Your task to perform on an android device: When is my next appointment? Image 0: 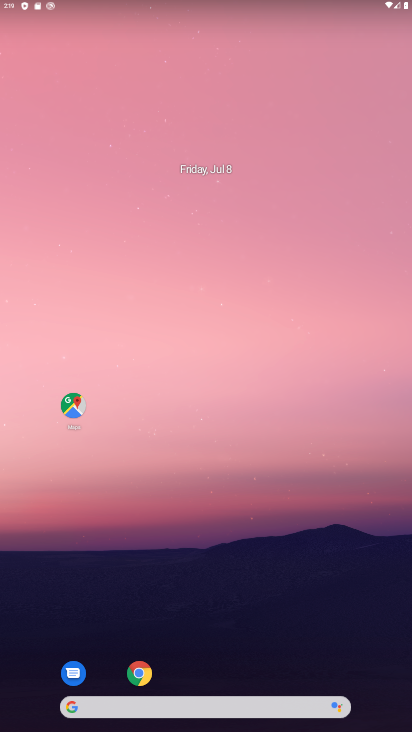
Step 0: drag from (385, 3) to (275, 543)
Your task to perform on an android device: When is my next appointment? Image 1: 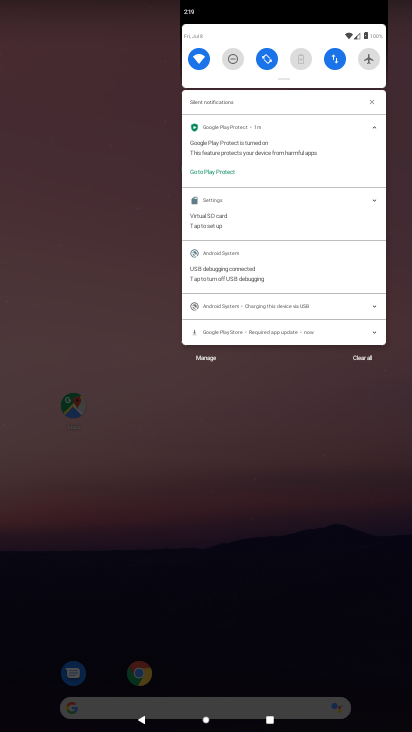
Step 1: click (261, 485)
Your task to perform on an android device: When is my next appointment? Image 2: 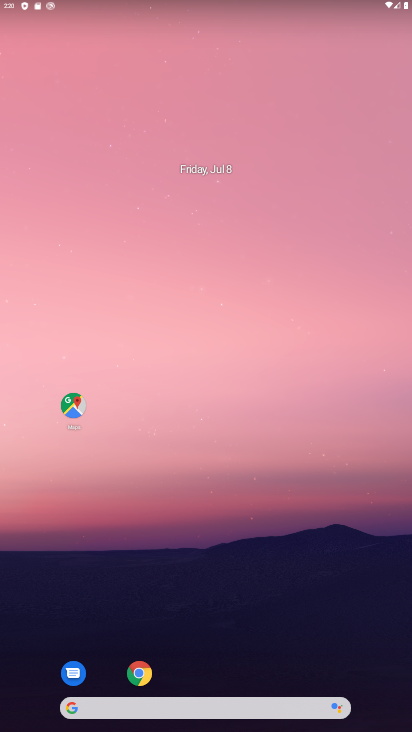
Step 2: drag from (240, 677) to (362, 7)
Your task to perform on an android device: When is my next appointment? Image 3: 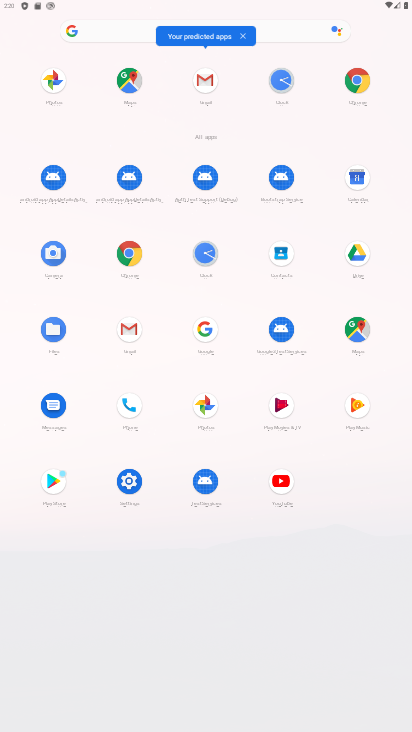
Step 3: click (353, 178)
Your task to perform on an android device: When is my next appointment? Image 4: 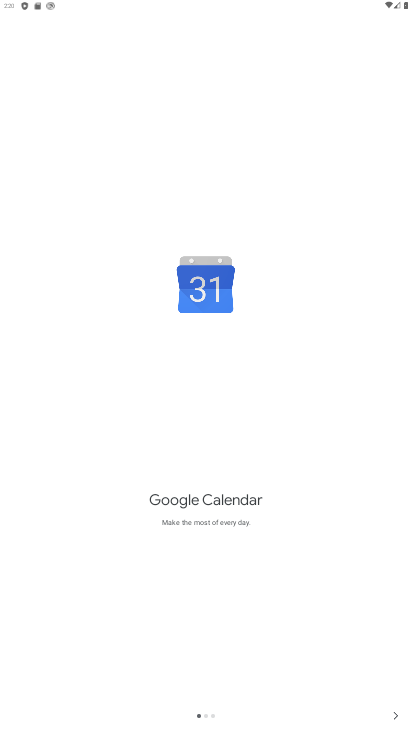
Step 4: click (402, 723)
Your task to perform on an android device: When is my next appointment? Image 5: 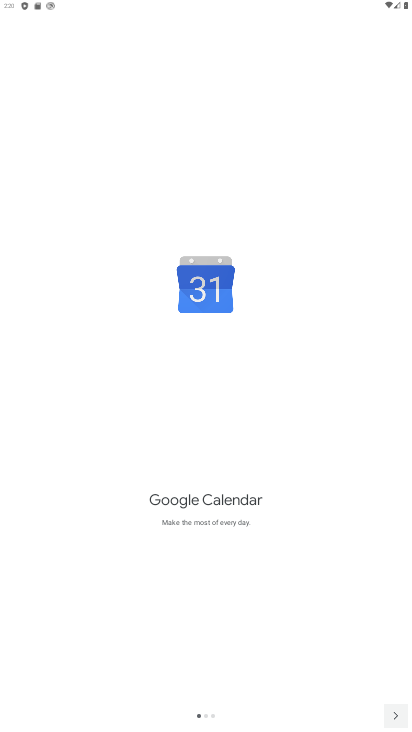
Step 5: click (402, 723)
Your task to perform on an android device: When is my next appointment? Image 6: 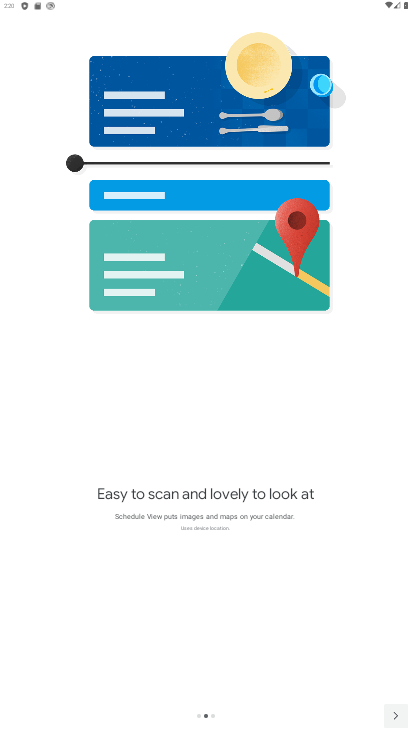
Step 6: click (402, 723)
Your task to perform on an android device: When is my next appointment? Image 7: 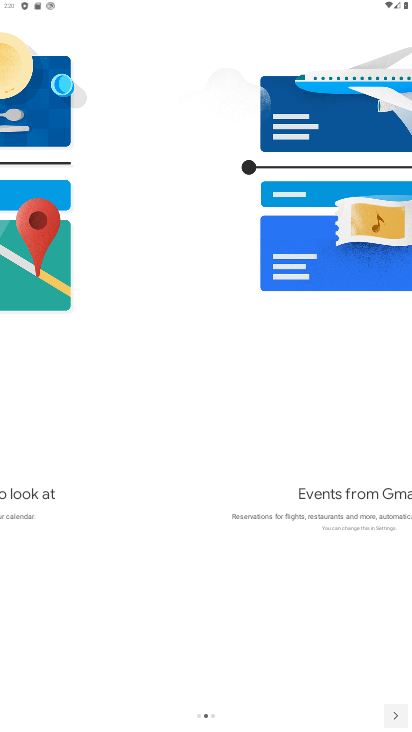
Step 7: click (402, 723)
Your task to perform on an android device: When is my next appointment? Image 8: 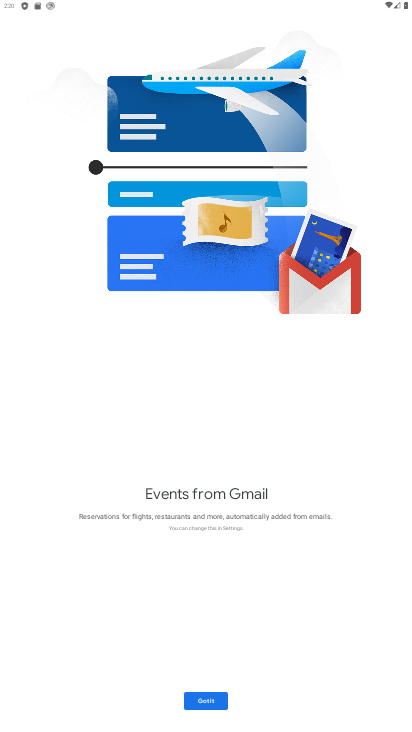
Step 8: click (194, 703)
Your task to perform on an android device: When is my next appointment? Image 9: 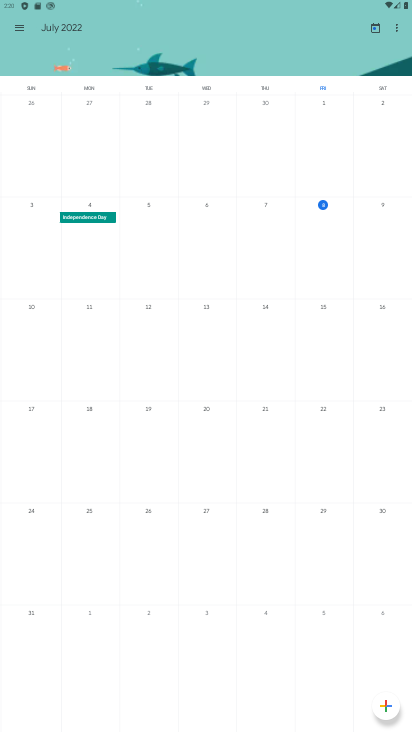
Step 9: click (19, 32)
Your task to perform on an android device: When is my next appointment? Image 10: 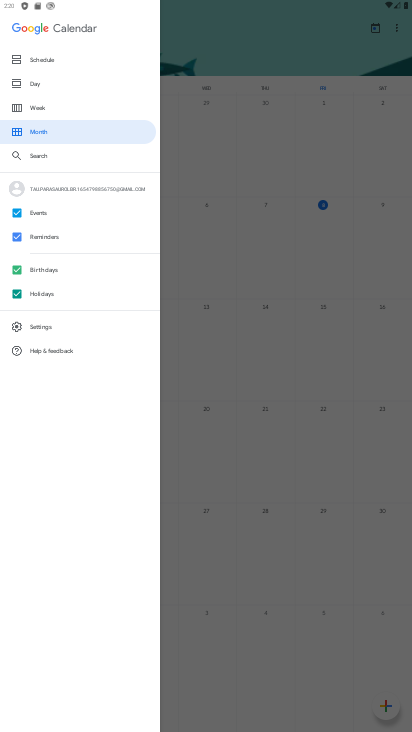
Step 10: click (22, 62)
Your task to perform on an android device: When is my next appointment? Image 11: 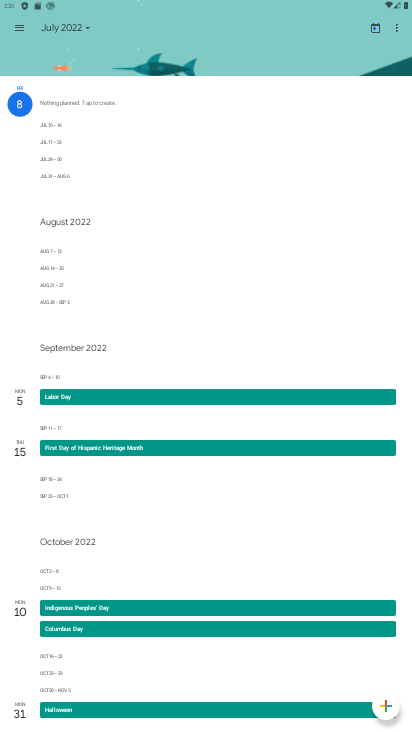
Step 11: drag from (143, 519) to (171, 111)
Your task to perform on an android device: When is my next appointment? Image 12: 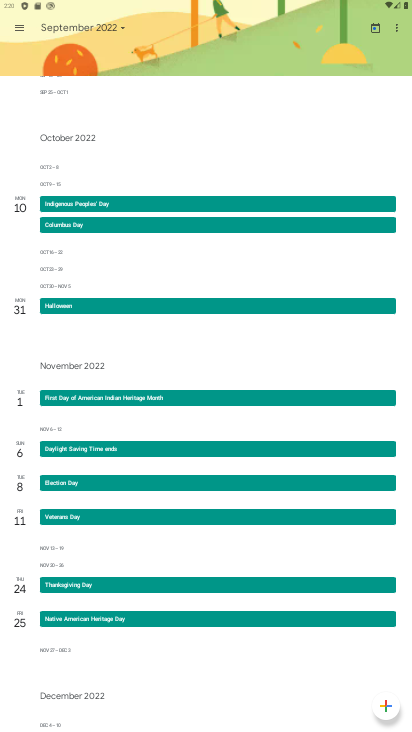
Step 12: click (389, 30)
Your task to perform on an android device: When is my next appointment? Image 13: 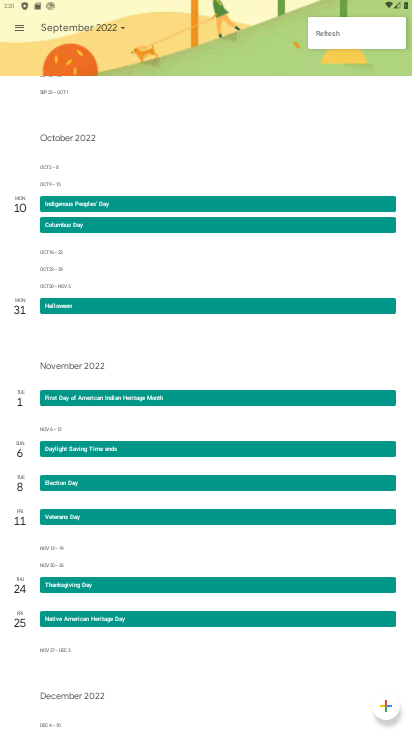
Step 13: click (389, 30)
Your task to perform on an android device: When is my next appointment? Image 14: 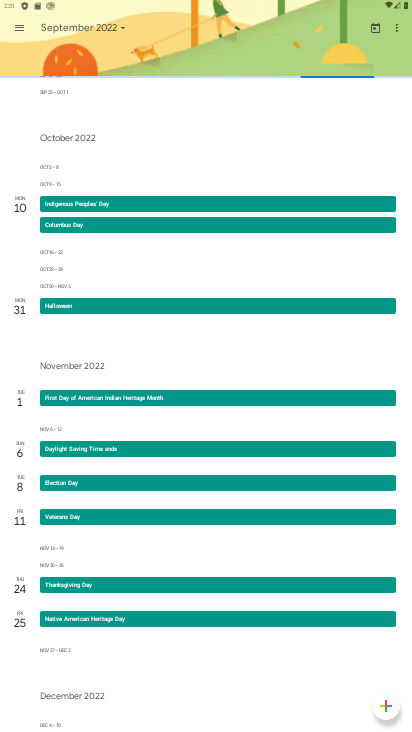
Step 14: click (15, 26)
Your task to perform on an android device: When is my next appointment? Image 15: 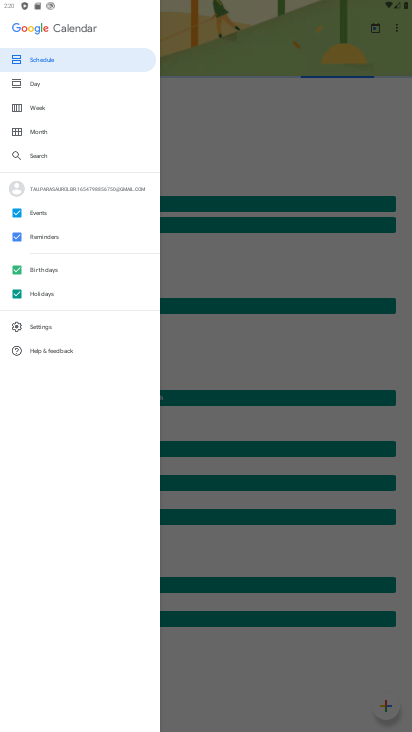
Step 15: task complete